Your task to perform on an android device: turn on the 24-hour format for clock Image 0: 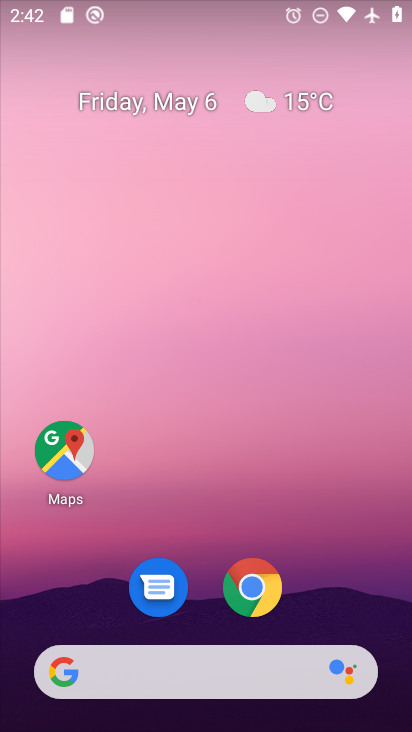
Step 0: drag from (354, 578) to (258, 40)
Your task to perform on an android device: turn on the 24-hour format for clock Image 1: 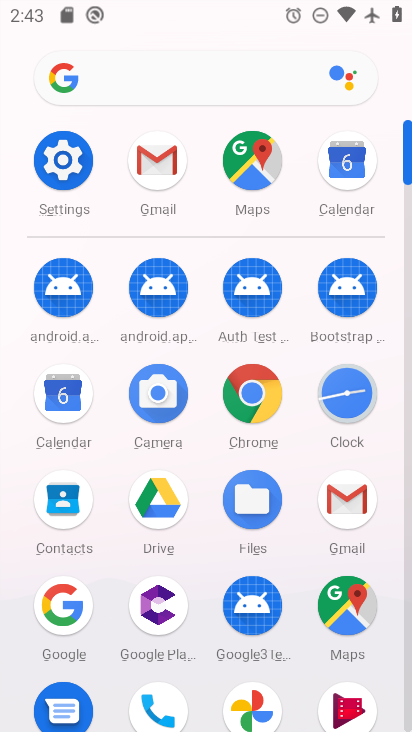
Step 1: click (343, 403)
Your task to perform on an android device: turn on the 24-hour format for clock Image 2: 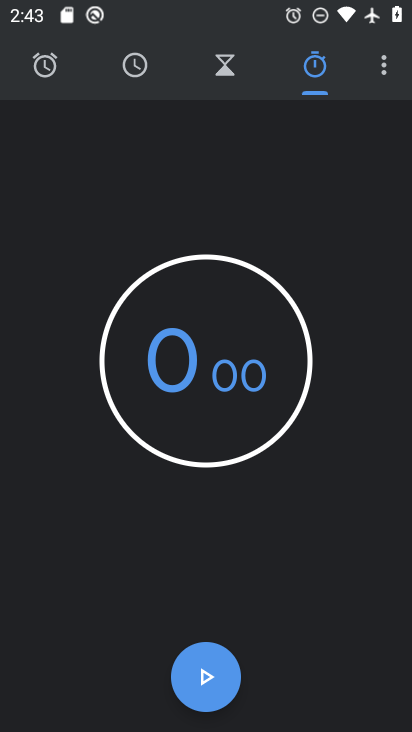
Step 2: click (388, 67)
Your task to perform on an android device: turn on the 24-hour format for clock Image 3: 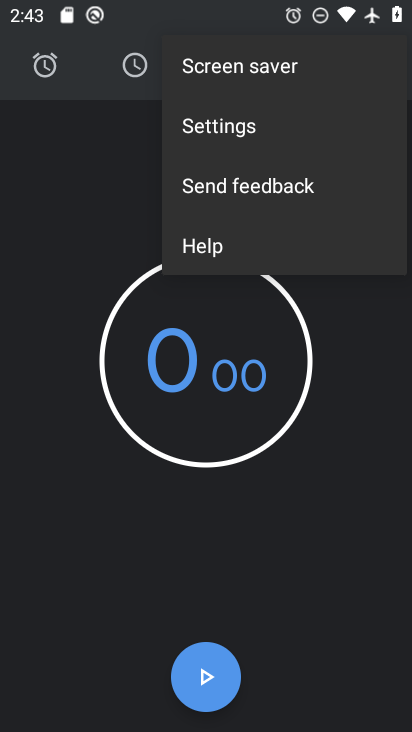
Step 3: click (262, 132)
Your task to perform on an android device: turn on the 24-hour format for clock Image 4: 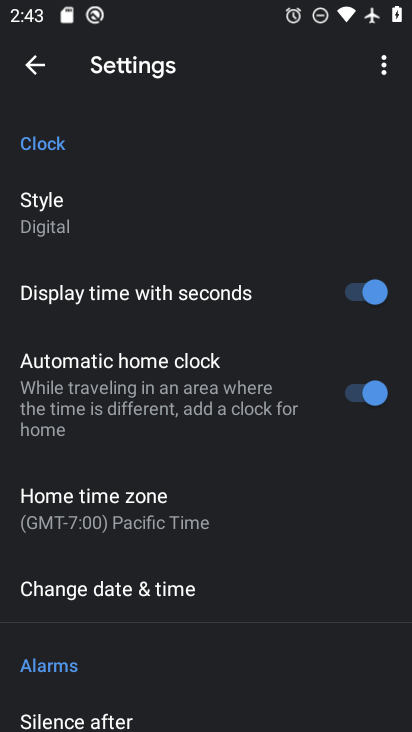
Step 4: click (228, 586)
Your task to perform on an android device: turn on the 24-hour format for clock Image 5: 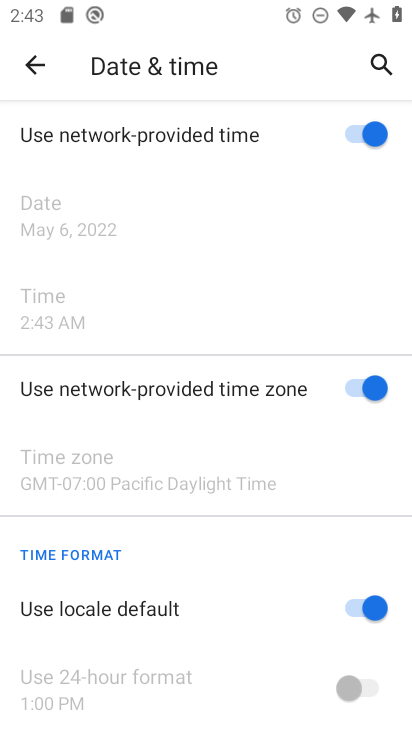
Step 5: click (370, 603)
Your task to perform on an android device: turn on the 24-hour format for clock Image 6: 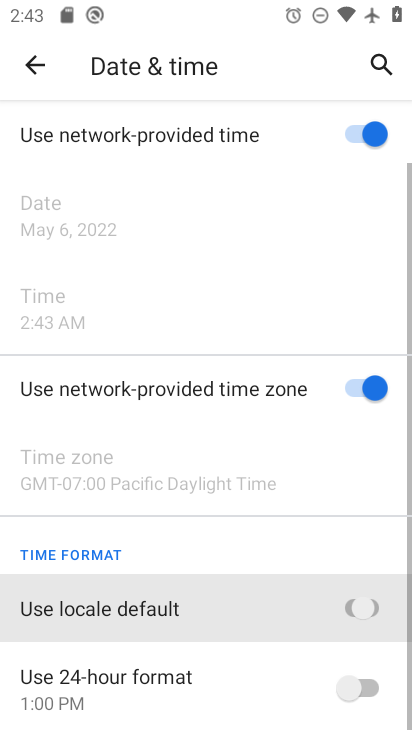
Step 6: click (363, 688)
Your task to perform on an android device: turn on the 24-hour format for clock Image 7: 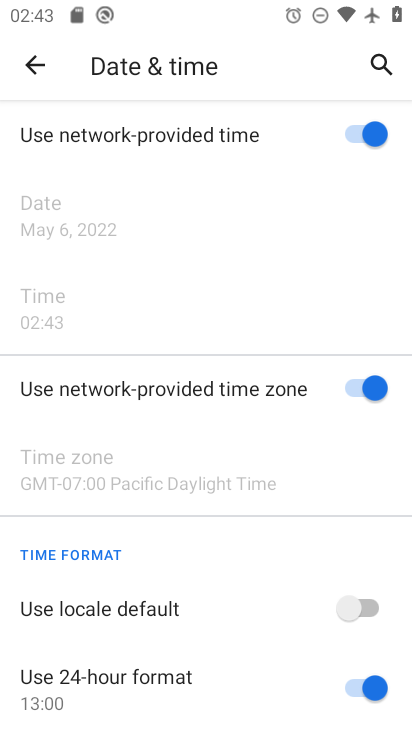
Step 7: task complete